Your task to perform on an android device: empty trash in google photos Image 0: 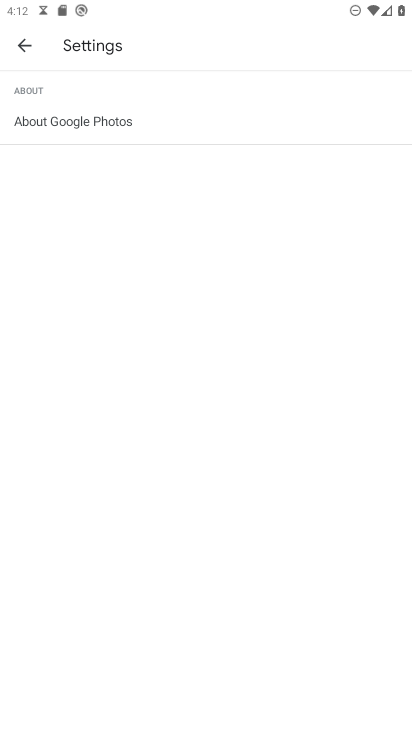
Step 0: press home button
Your task to perform on an android device: empty trash in google photos Image 1: 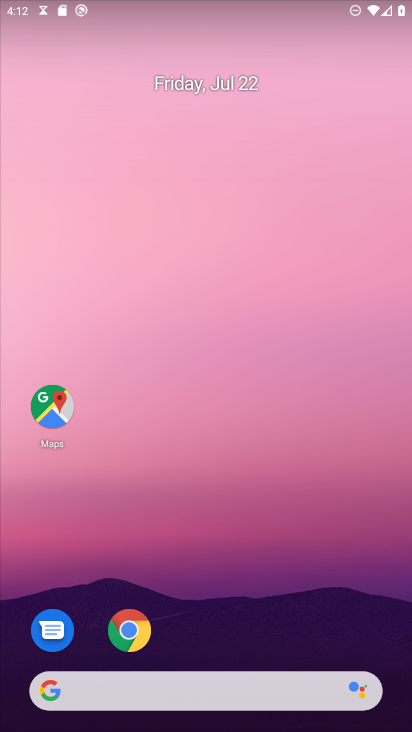
Step 1: drag from (210, 640) to (221, 76)
Your task to perform on an android device: empty trash in google photos Image 2: 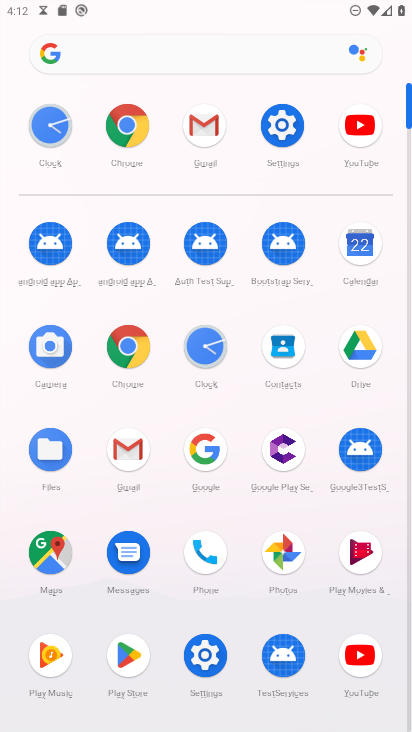
Step 2: click (289, 574)
Your task to perform on an android device: empty trash in google photos Image 3: 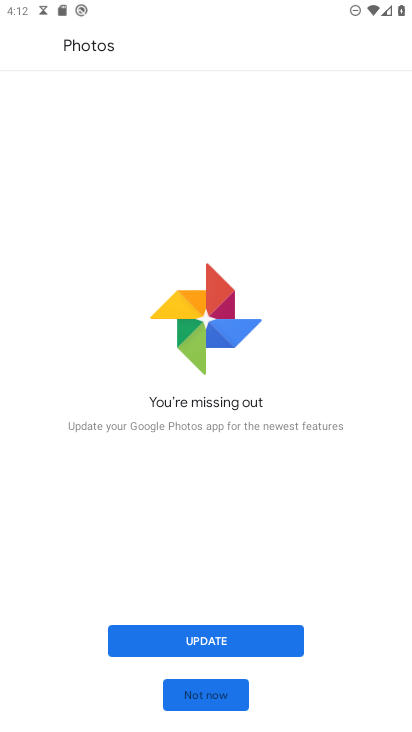
Step 3: click (211, 697)
Your task to perform on an android device: empty trash in google photos Image 4: 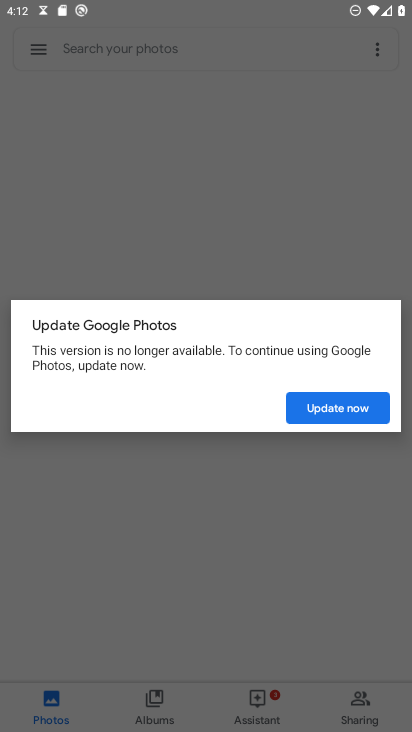
Step 4: click (348, 408)
Your task to perform on an android device: empty trash in google photos Image 5: 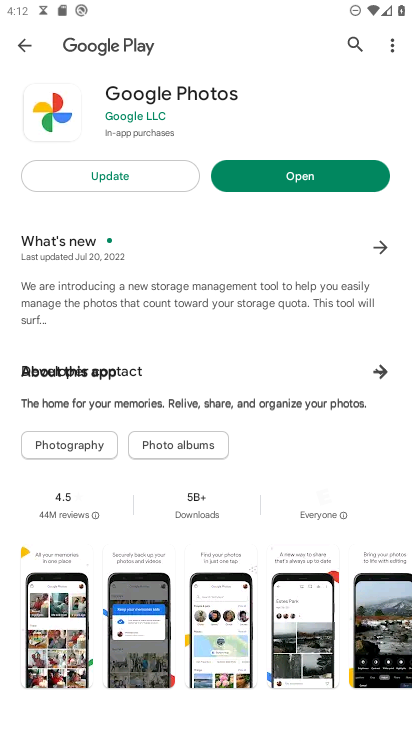
Step 5: click (246, 172)
Your task to perform on an android device: empty trash in google photos Image 6: 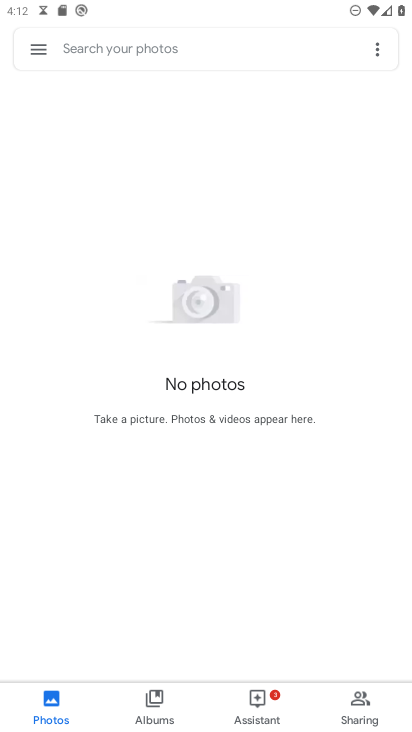
Step 6: click (28, 47)
Your task to perform on an android device: empty trash in google photos Image 7: 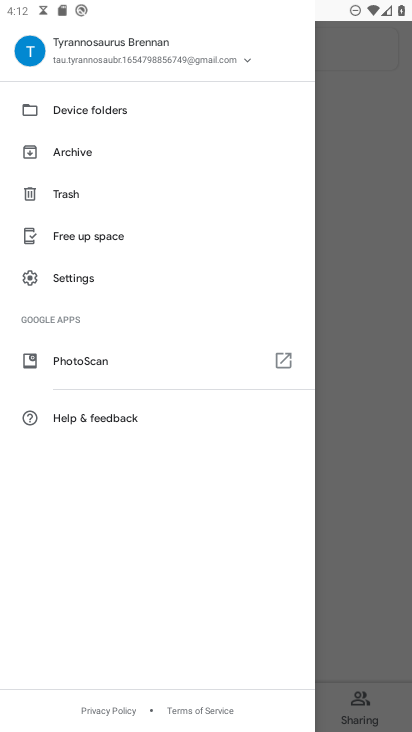
Step 7: click (74, 197)
Your task to perform on an android device: empty trash in google photos Image 8: 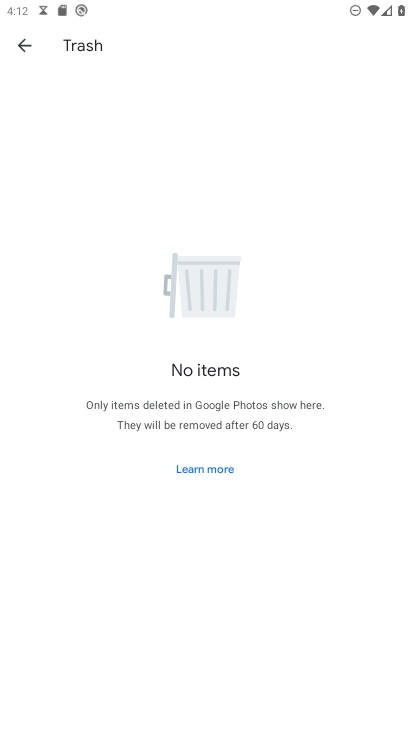
Step 8: task complete